Your task to perform on an android device: toggle data saver in the chrome app Image 0: 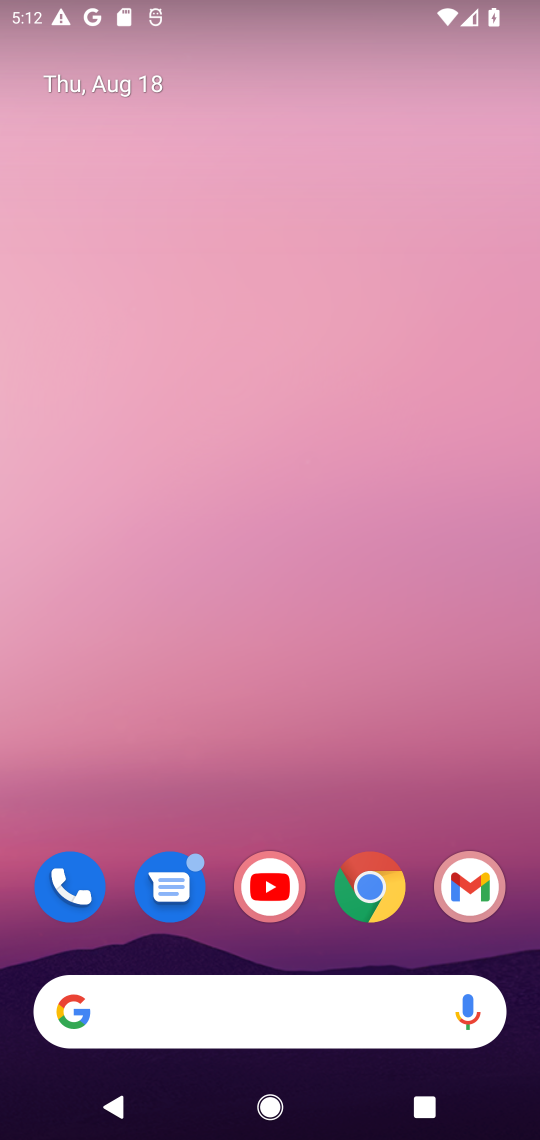
Step 0: click (388, 906)
Your task to perform on an android device: toggle data saver in the chrome app Image 1: 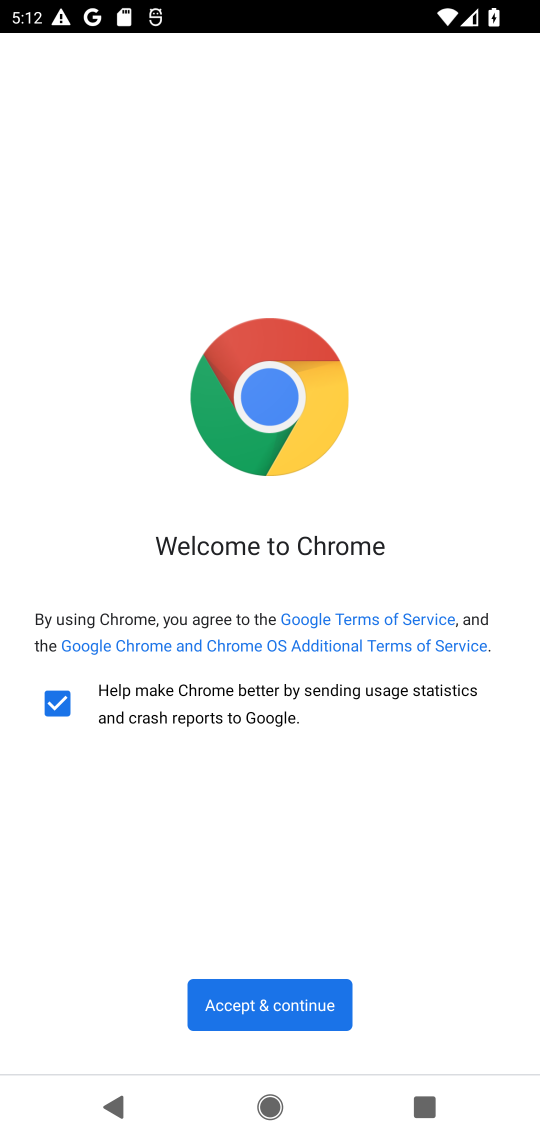
Step 1: click (299, 997)
Your task to perform on an android device: toggle data saver in the chrome app Image 2: 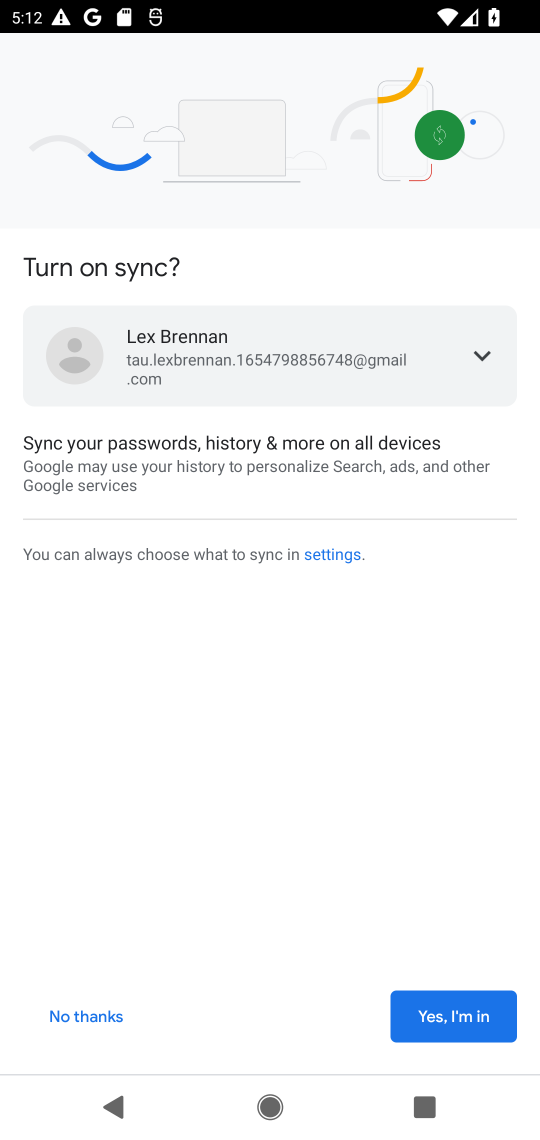
Step 2: click (425, 1010)
Your task to perform on an android device: toggle data saver in the chrome app Image 3: 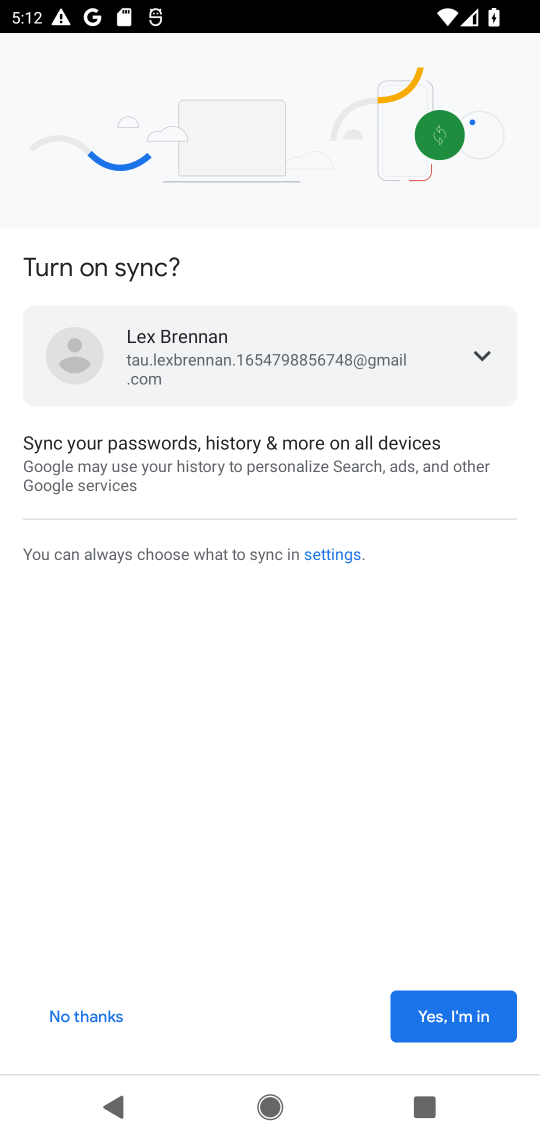
Step 3: task complete